Your task to perform on an android device: What's the weather going to be this weekend? Image 0: 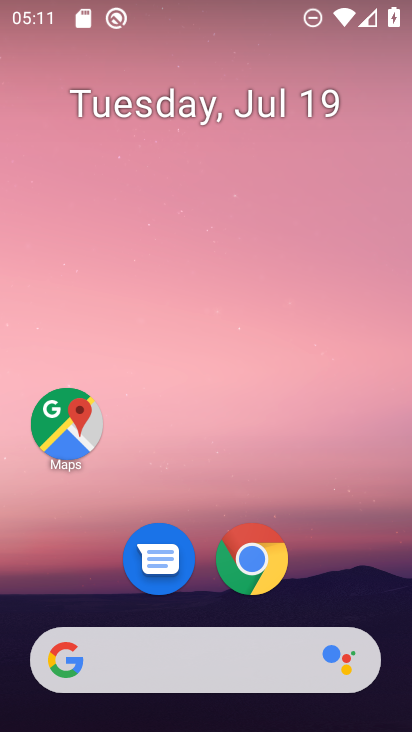
Step 0: click (182, 658)
Your task to perform on an android device: What's the weather going to be this weekend? Image 1: 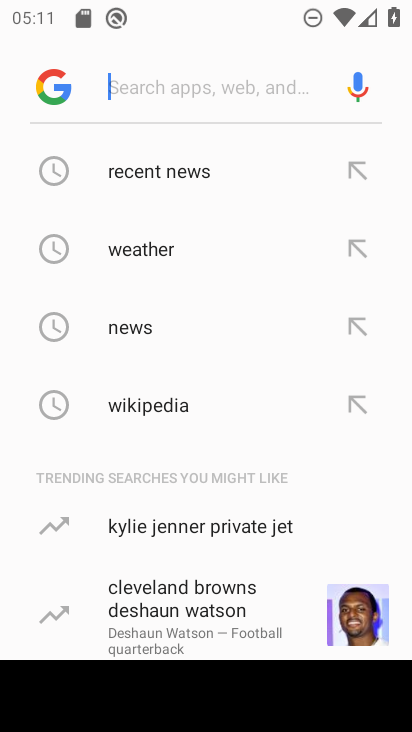
Step 1: click (141, 249)
Your task to perform on an android device: What's the weather going to be this weekend? Image 2: 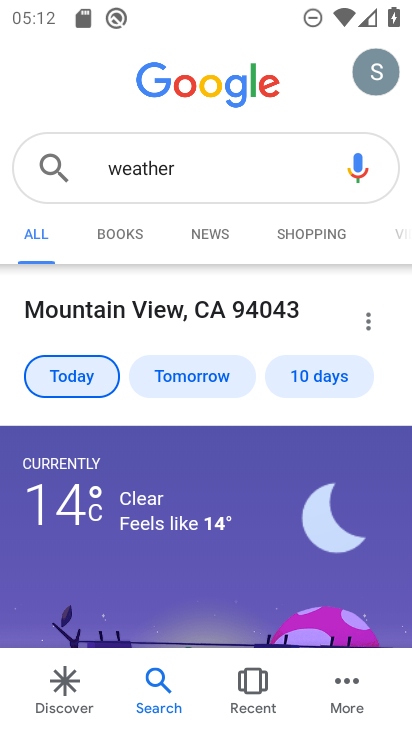
Step 2: click (313, 370)
Your task to perform on an android device: What's the weather going to be this weekend? Image 3: 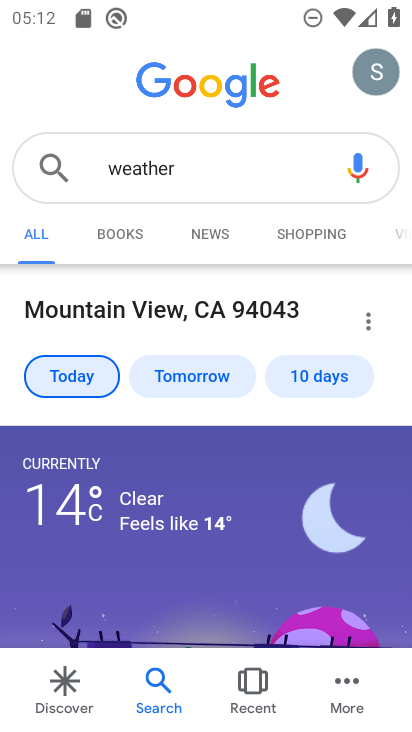
Step 3: click (312, 378)
Your task to perform on an android device: What's the weather going to be this weekend? Image 4: 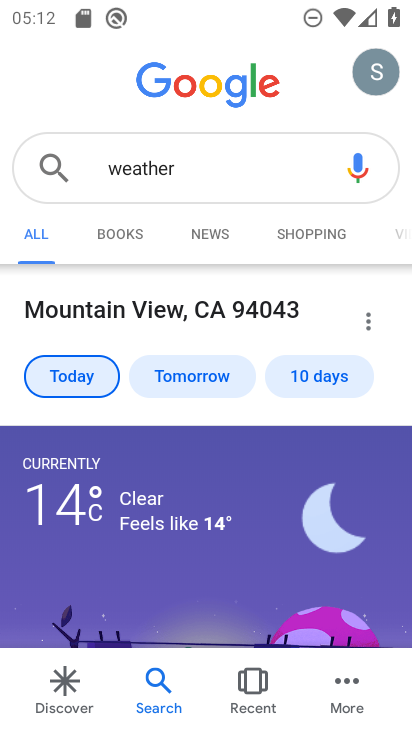
Step 4: task complete